Your task to perform on an android device: Clear the shopping cart on bestbuy.com. Image 0: 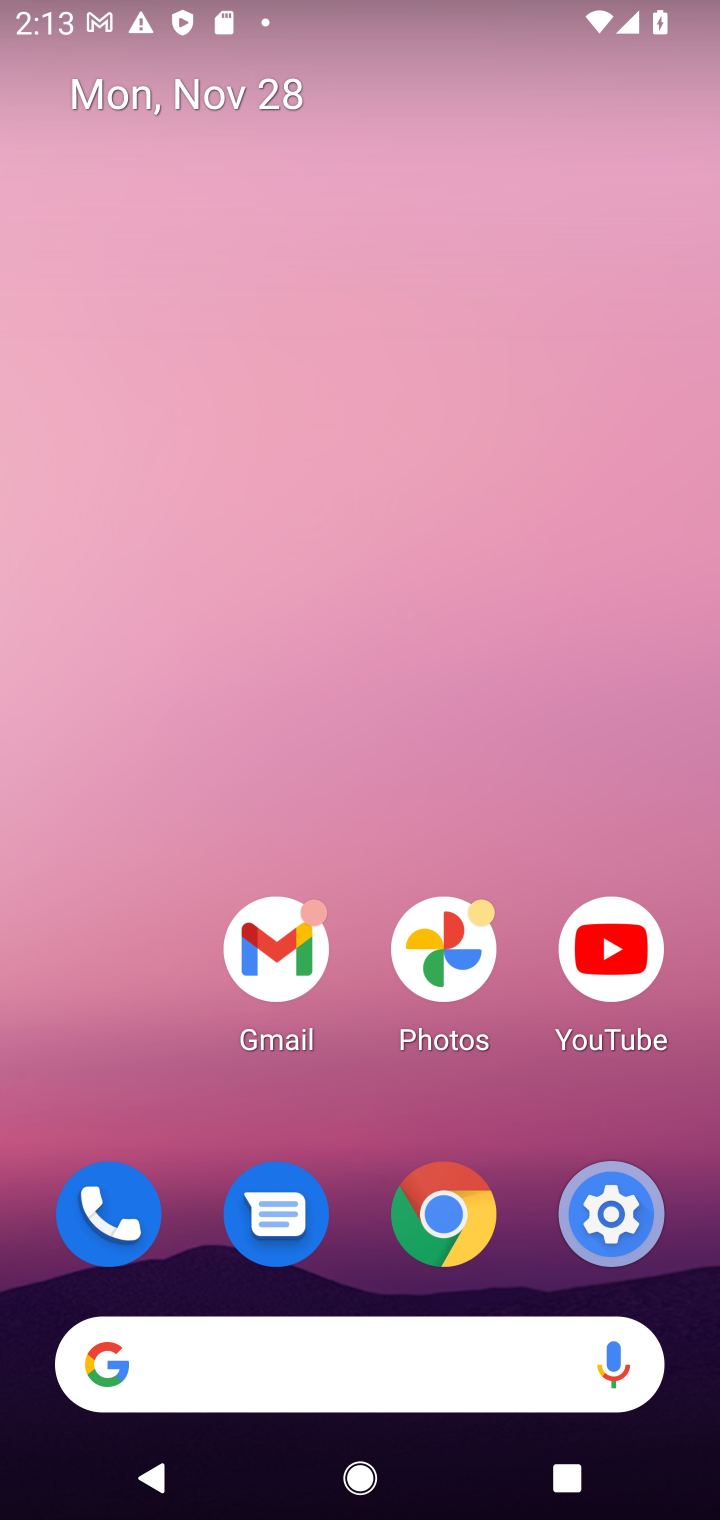
Step 0: click (331, 1374)
Your task to perform on an android device: Clear the shopping cart on bestbuy.com. Image 1: 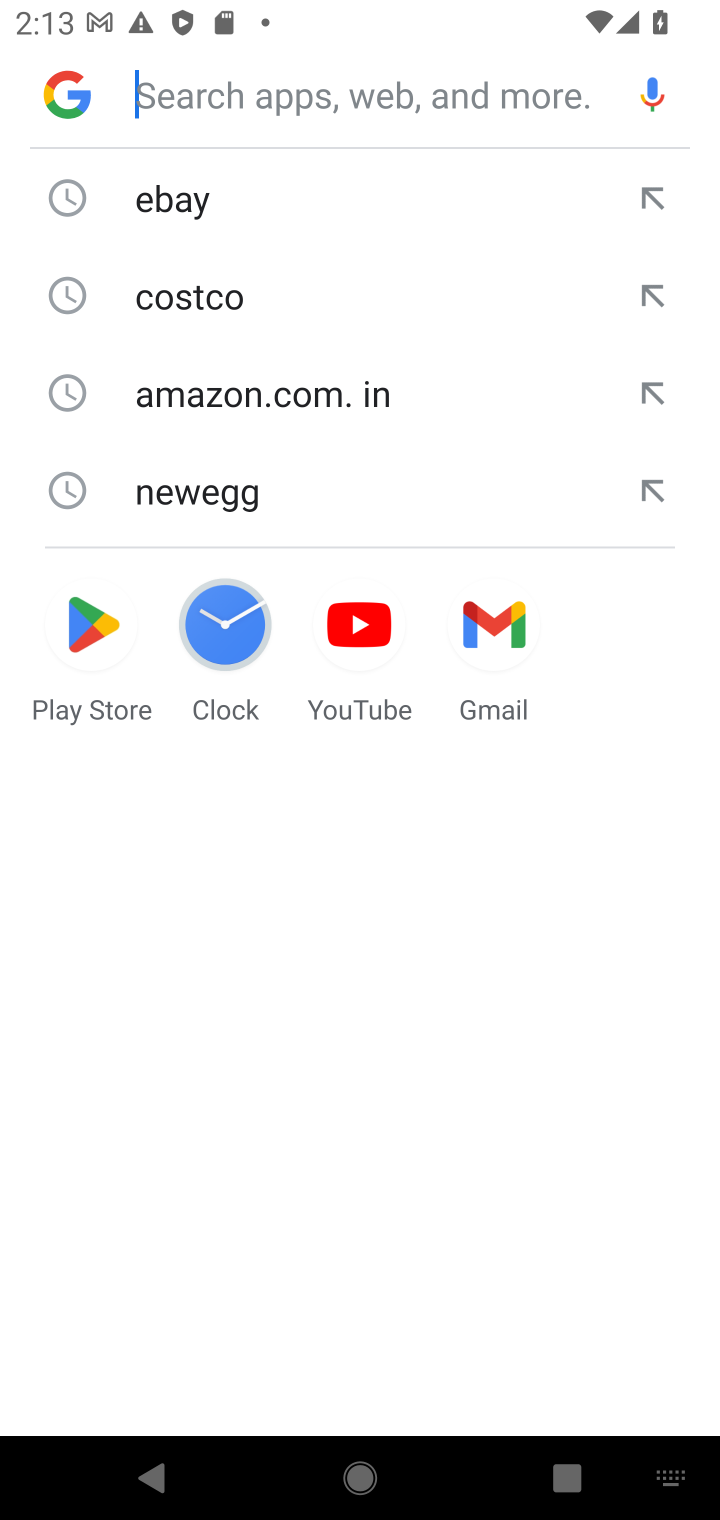
Step 1: type "bestbuy"
Your task to perform on an android device: Clear the shopping cart on bestbuy.com. Image 2: 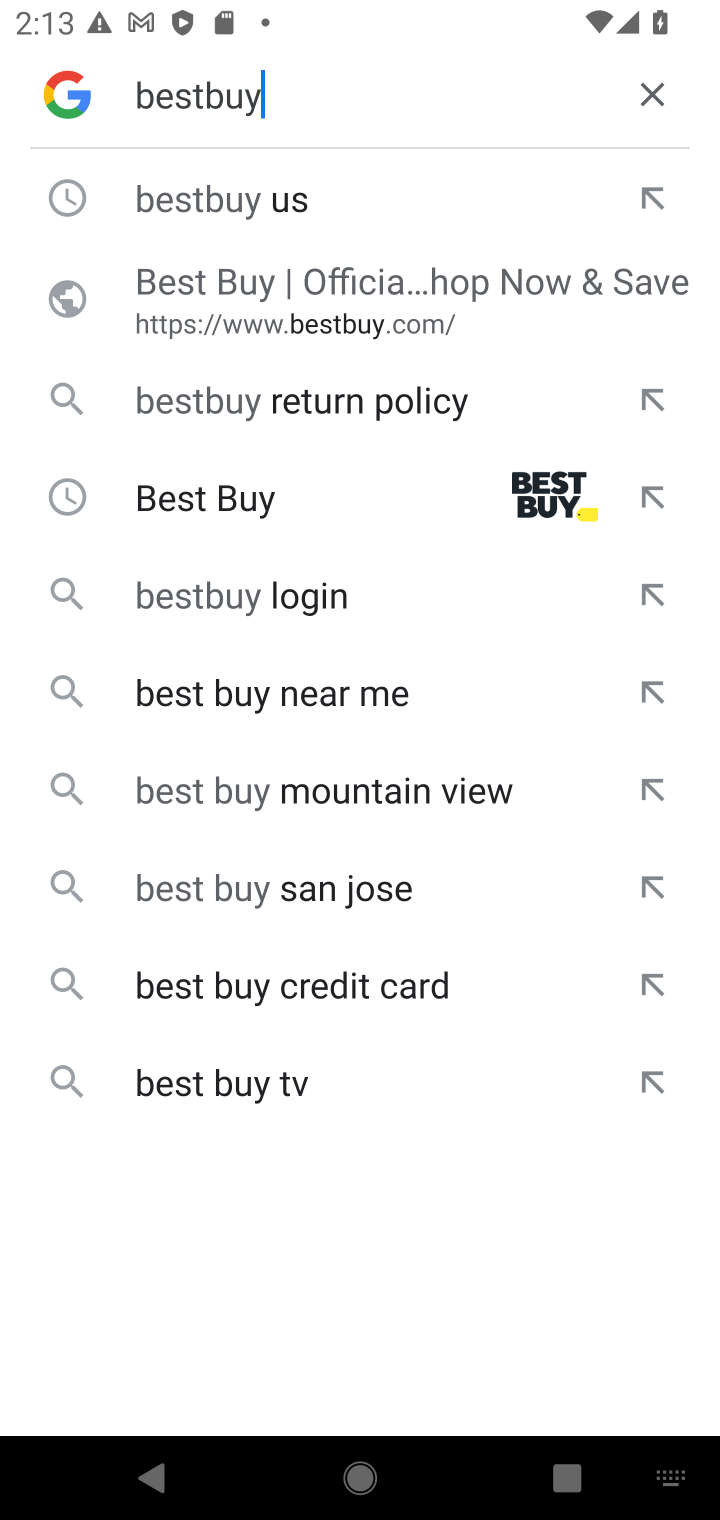
Step 2: click (249, 297)
Your task to perform on an android device: Clear the shopping cart on bestbuy.com. Image 3: 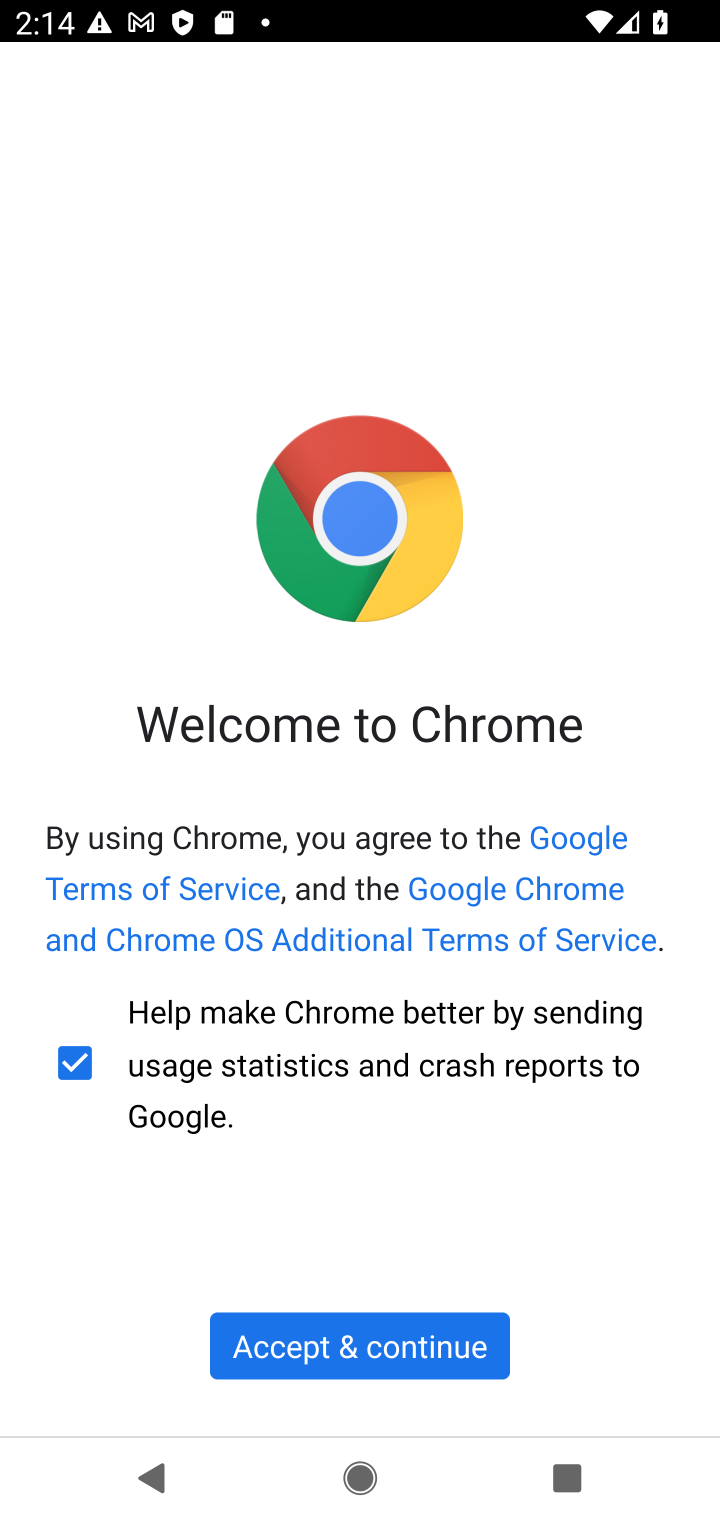
Step 3: click (278, 1361)
Your task to perform on an android device: Clear the shopping cart on bestbuy.com. Image 4: 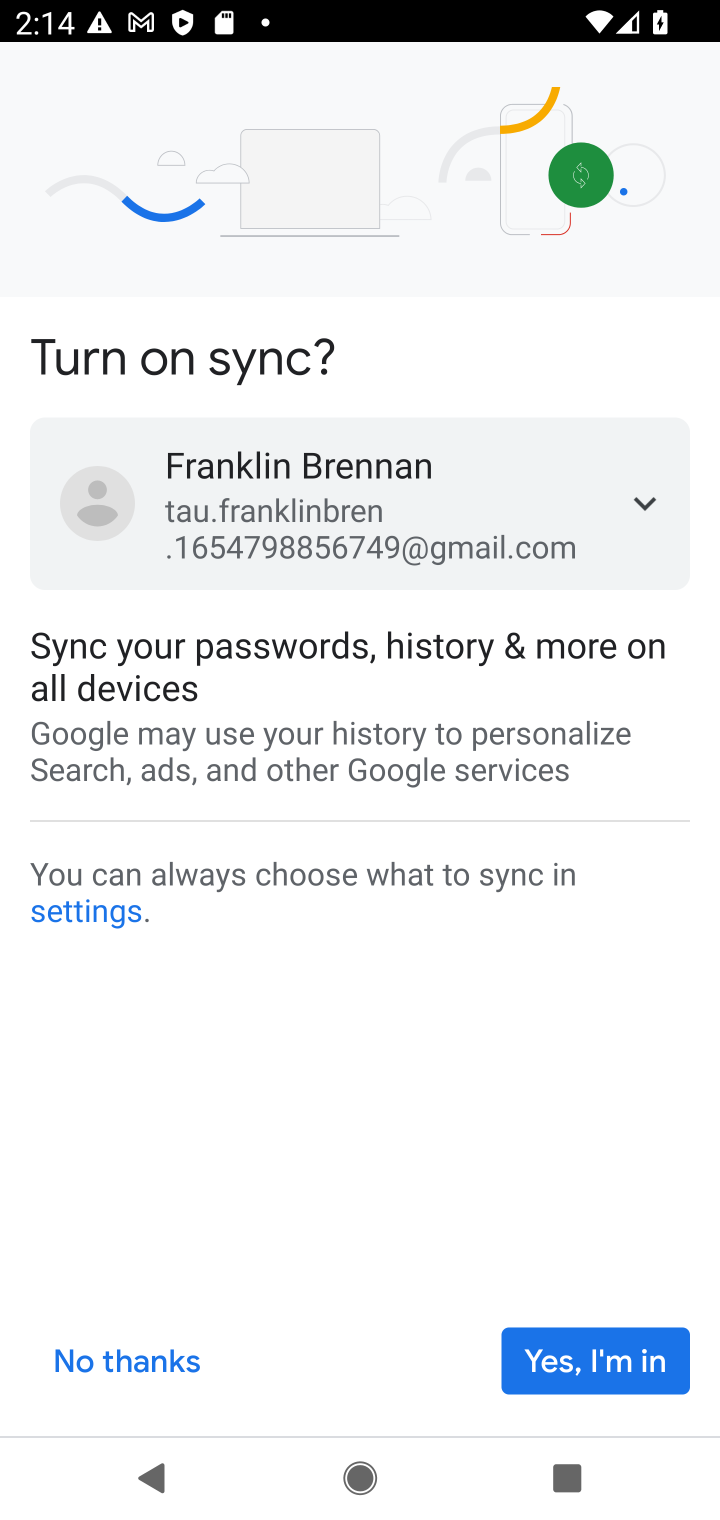
Step 4: click (549, 1355)
Your task to perform on an android device: Clear the shopping cart on bestbuy.com. Image 5: 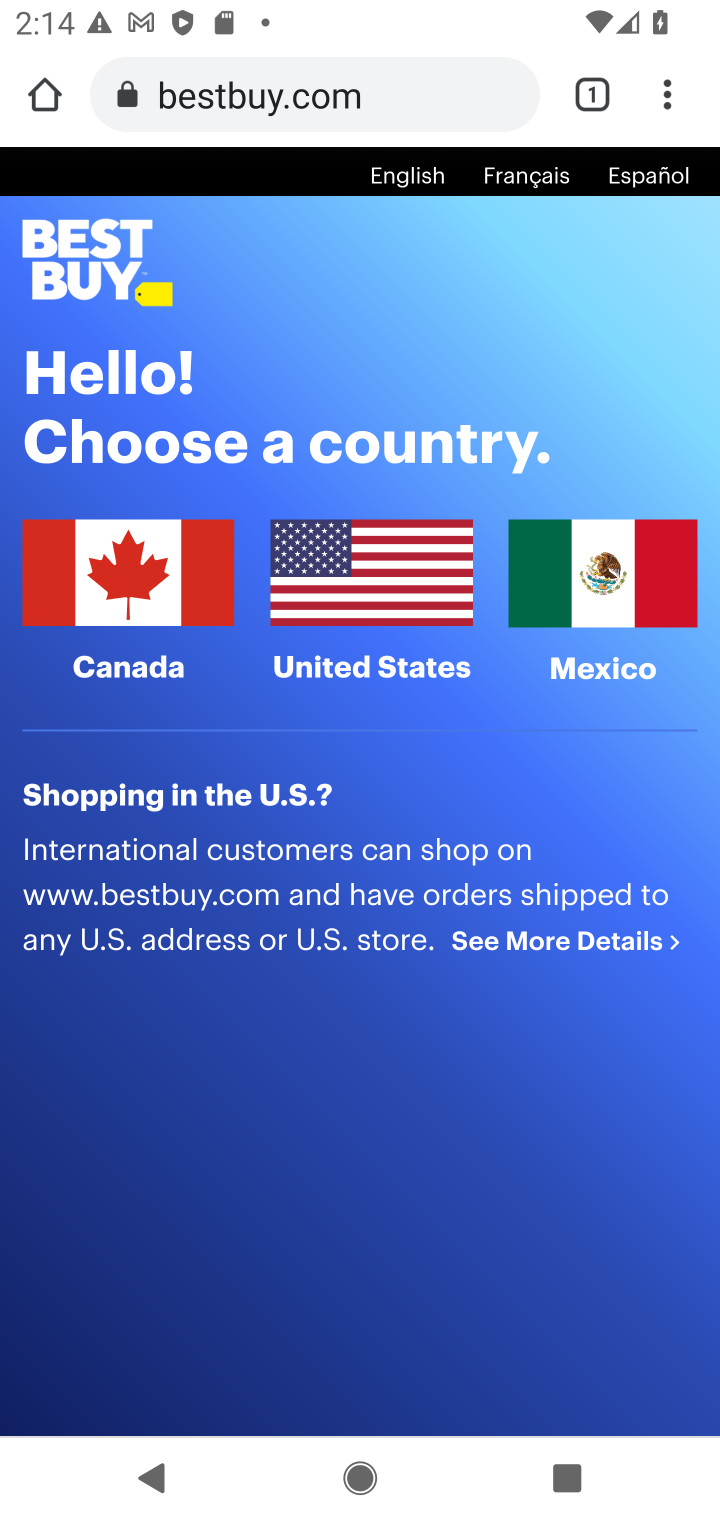
Step 5: click (114, 589)
Your task to perform on an android device: Clear the shopping cart on bestbuy.com. Image 6: 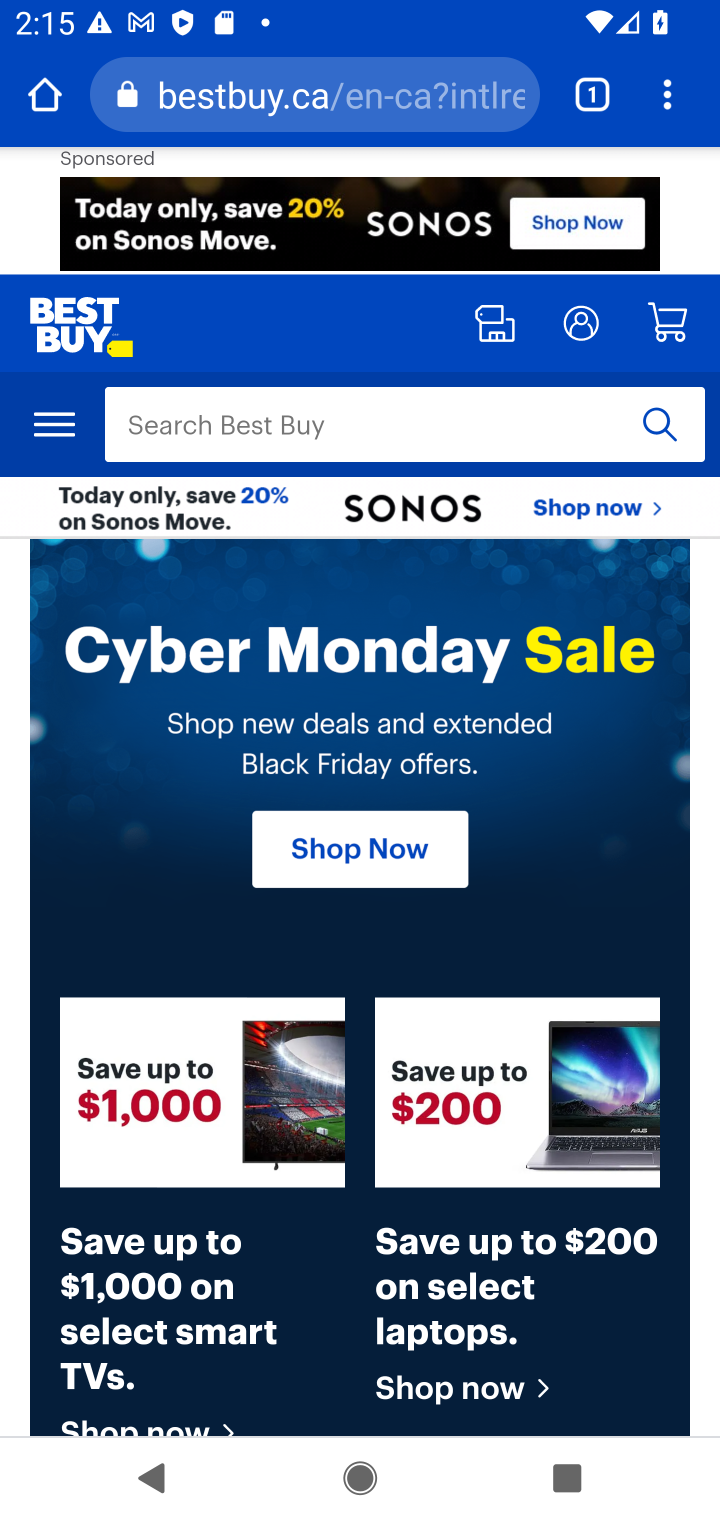
Step 6: click (240, 423)
Your task to perform on an android device: Clear the shopping cart on bestbuy.com. Image 7: 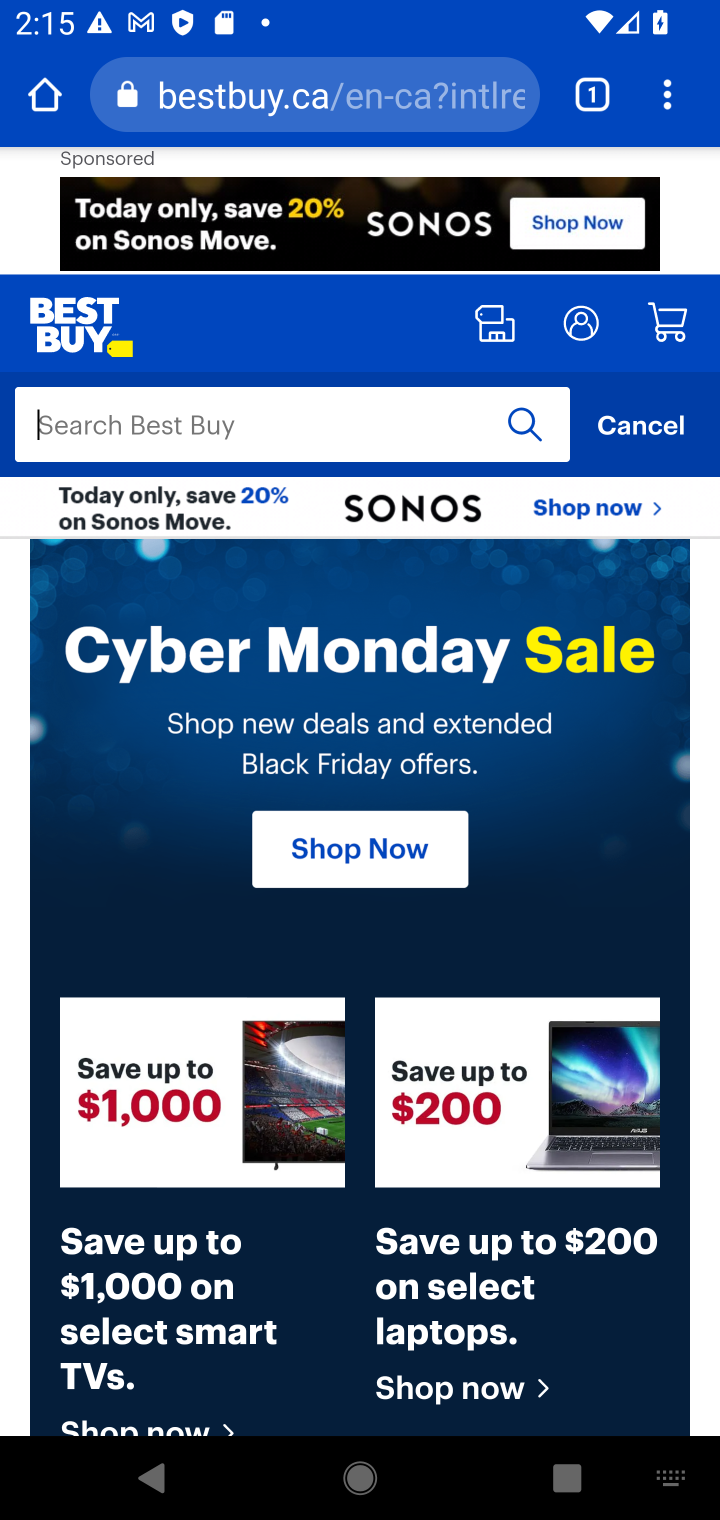
Step 7: click (649, 351)
Your task to perform on an android device: Clear the shopping cart on bestbuy.com. Image 8: 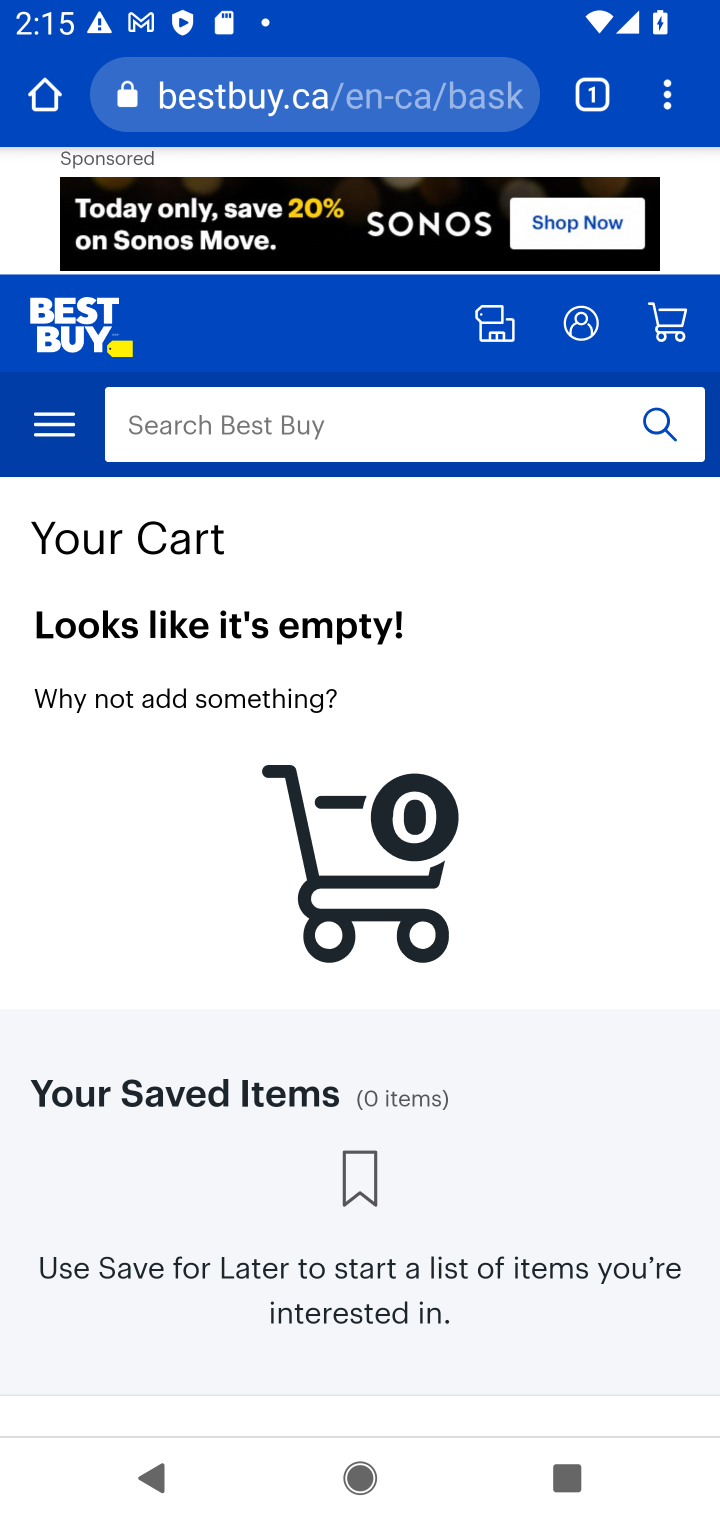
Step 8: task complete